Your task to perform on an android device: Open wifi settings Image 0: 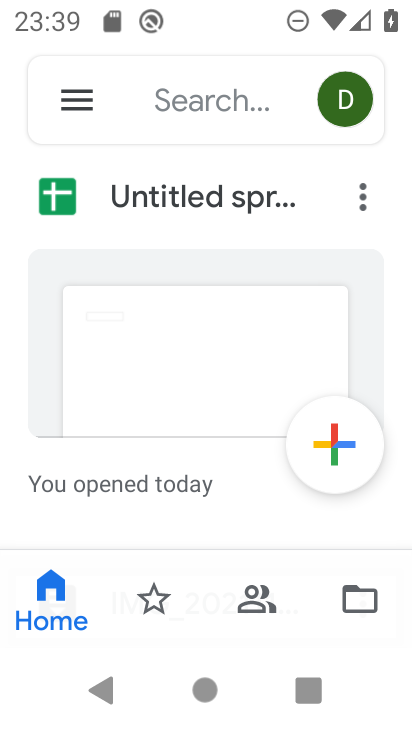
Step 0: press home button
Your task to perform on an android device: Open wifi settings Image 1: 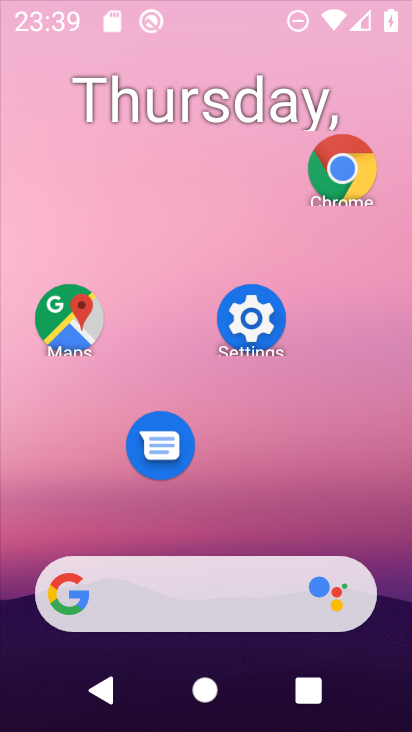
Step 1: drag from (181, 549) to (230, 103)
Your task to perform on an android device: Open wifi settings Image 2: 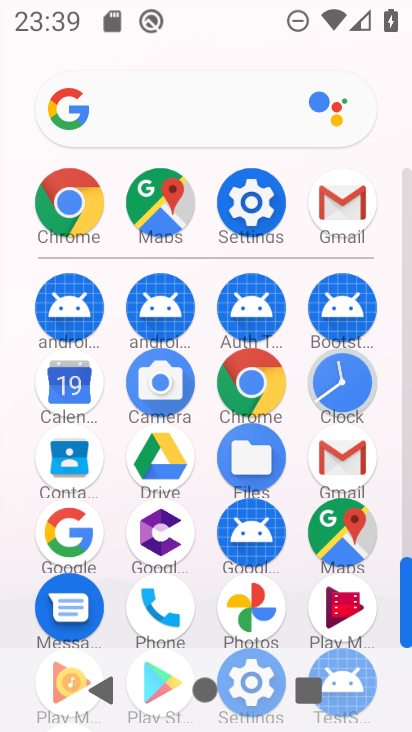
Step 2: click (244, 188)
Your task to perform on an android device: Open wifi settings Image 3: 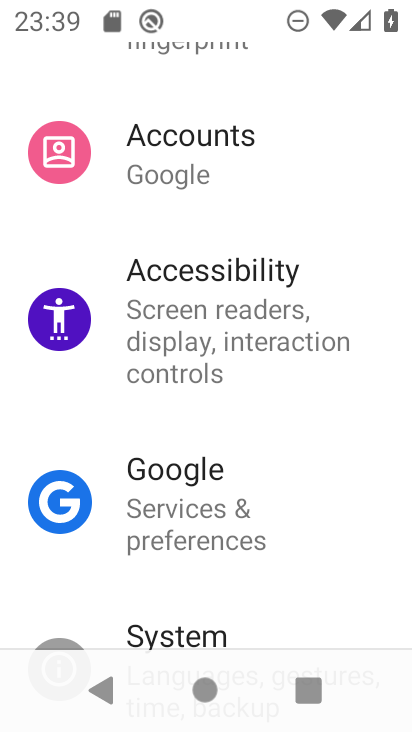
Step 3: drag from (255, 264) to (247, 656)
Your task to perform on an android device: Open wifi settings Image 4: 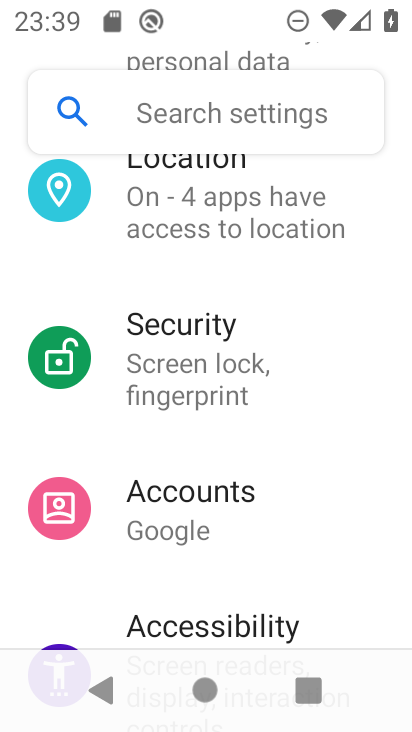
Step 4: drag from (216, 220) to (321, 711)
Your task to perform on an android device: Open wifi settings Image 5: 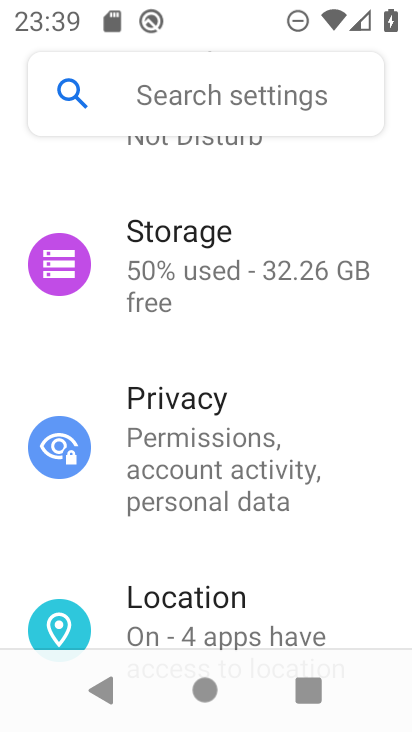
Step 5: drag from (235, 213) to (316, 728)
Your task to perform on an android device: Open wifi settings Image 6: 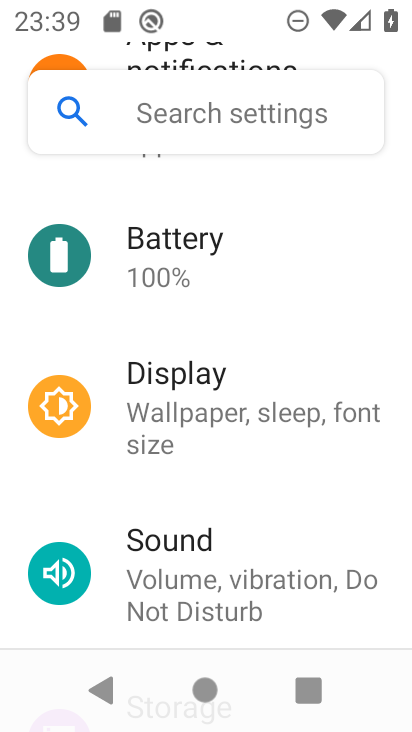
Step 6: drag from (196, 185) to (256, 731)
Your task to perform on an android device: Open wifi settings Image 7: 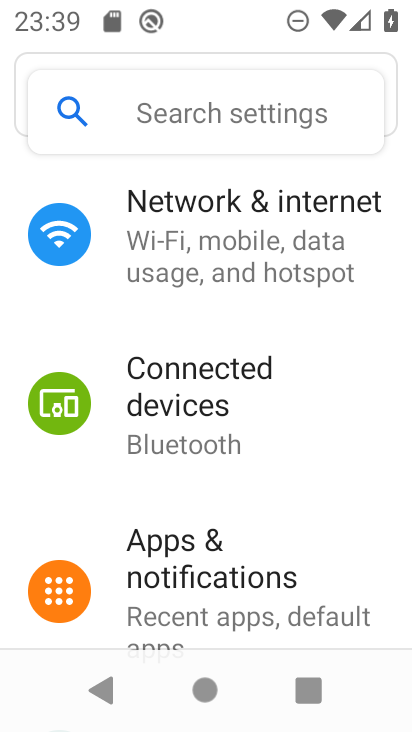
Step 7: drag from (227, 225) to (334, 724)
Your task to perform on an android device: Open wifi settings Image 8: 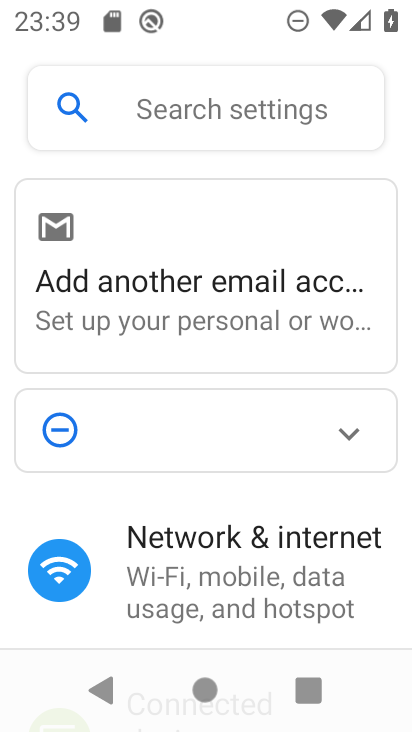
Step 8: click (176, 566)
Your task to perform on an android device: Open wifi settings Image 9: 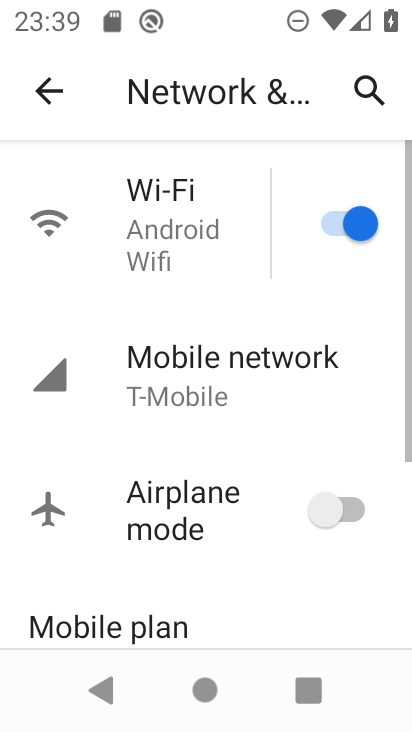
Step 9: drag from (215, 494) to (289, 223)
Your task to perform on an android device: Open wifi settings Image 10: 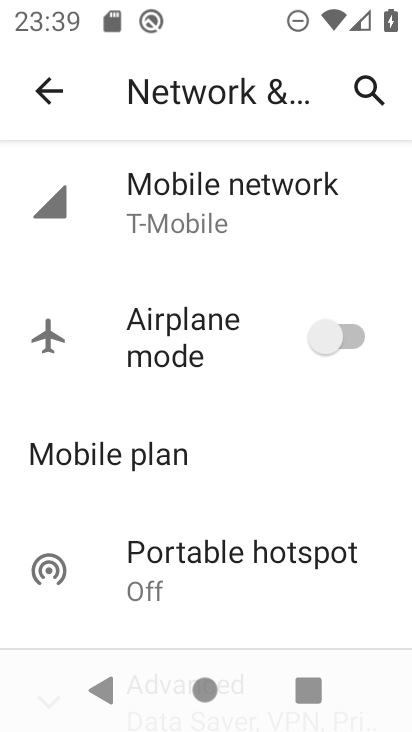
Step 10: drag from (231, 541) to (327, 172)
Your task to perform on an android device: Open wifi settings Image 11: 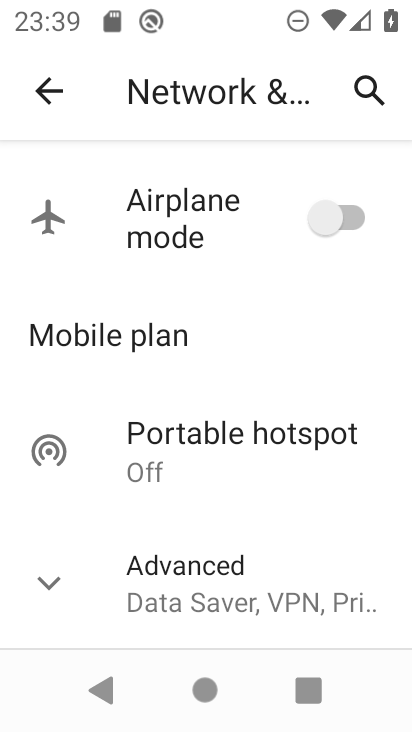
Step 11: drag from (219, 510) to (276, 254)
Your task to perform on an android device: Open wifi settings Image 12: 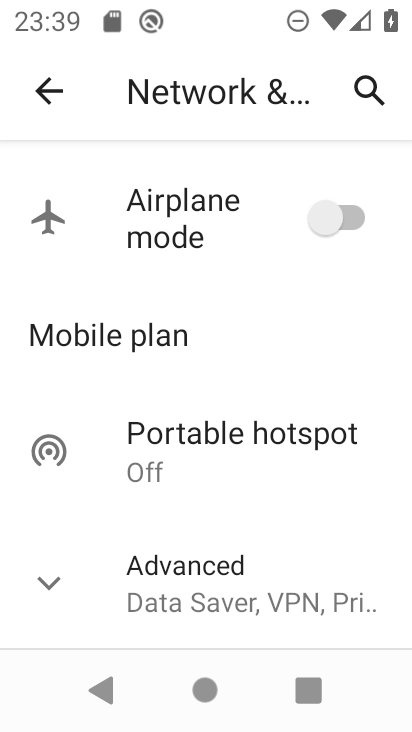
Step 12: drag from (226, 306) to (287, 731)
Your task to perform on an android device: Open wifi settings Image 13: 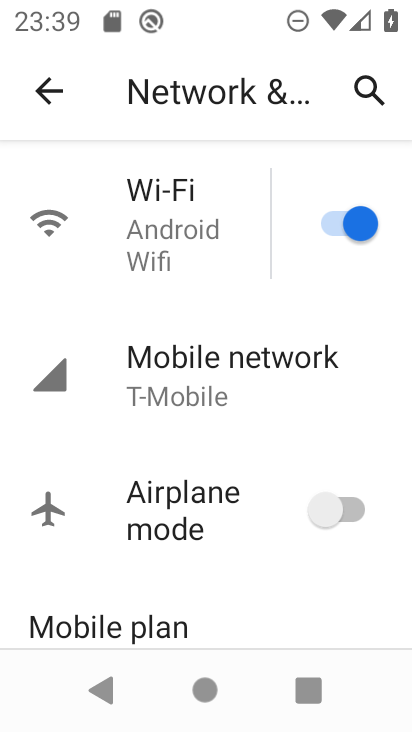
Step 13: click (226, 236)
Your task to perform on an android device: Open wifi settings Image 14: 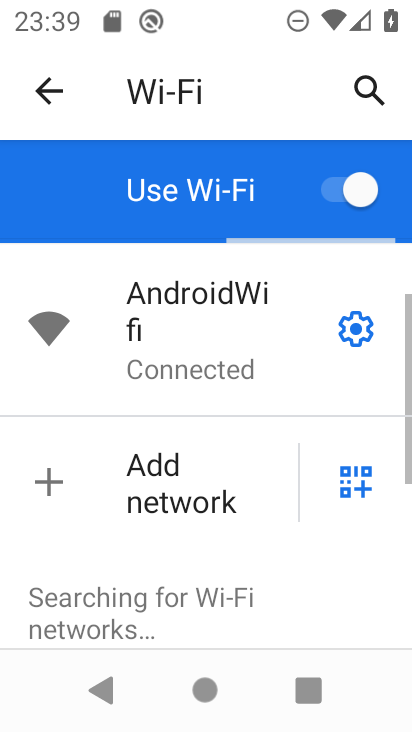
Step 14: drag from (223, 587) to (307, 277)
Your task to perform on an android device: Open wifi settings Image 15: 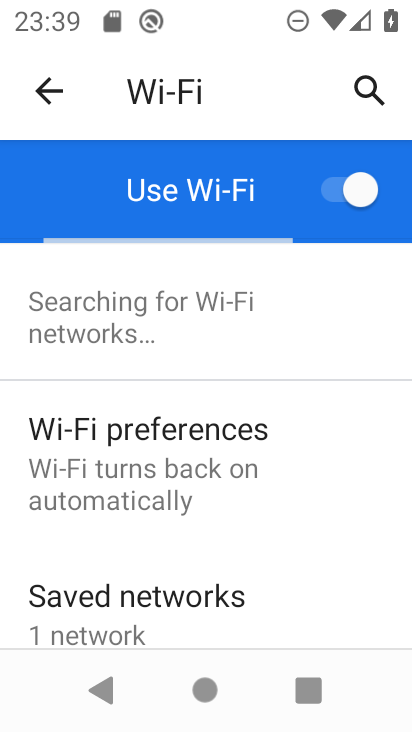
Step 15: drag from (225, 344) to (404, 729)
Your task to perform on an android device: Open wifi settings Image 16: 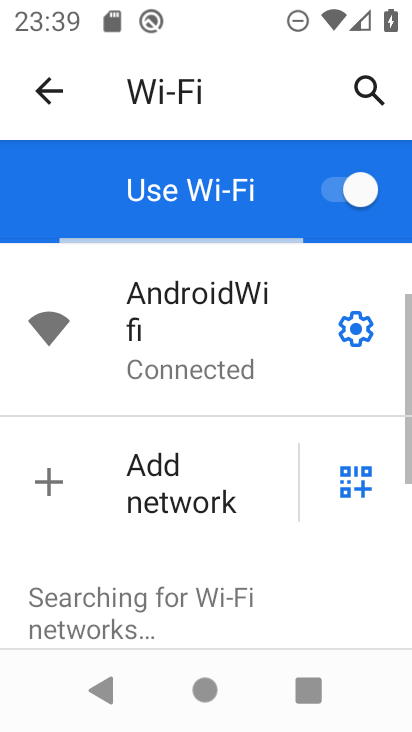
Step 16: click (348, 339)
Your task to perform on an android device: Open wifi settings Image 17: 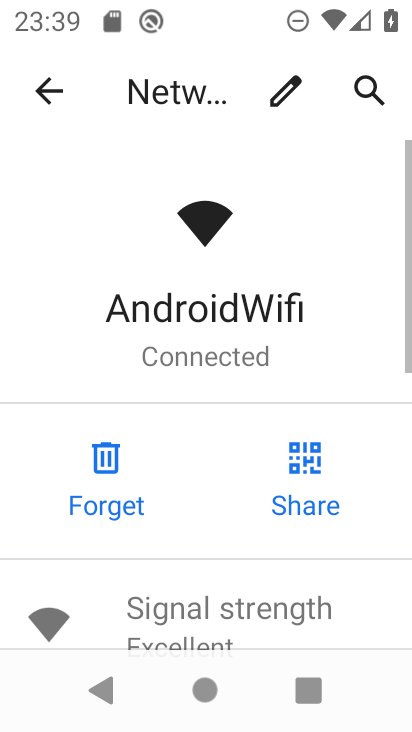
Step 17: task complete